Your task to perform on an android device: change alarm snooze length Image 0: 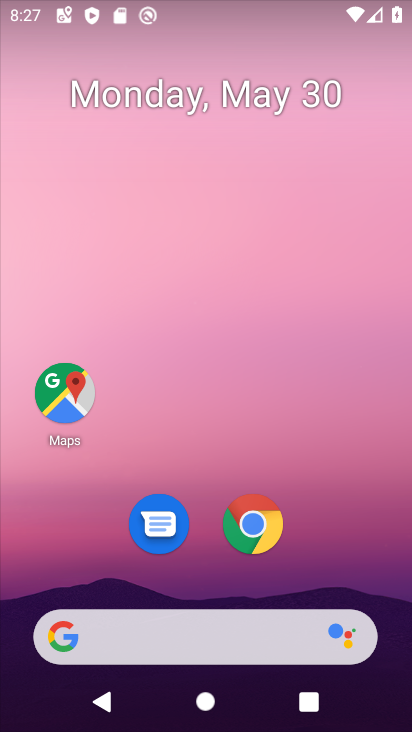
Step 0: drag from (311, 529) to (299, 33)
Your task to perform on an android device: change alarm snooze length Image 1: 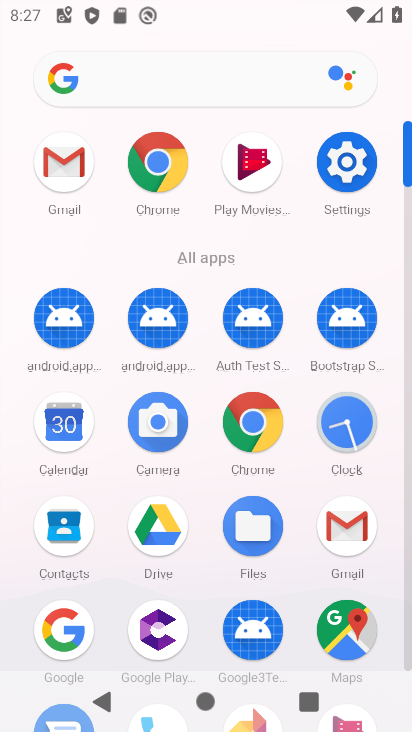
Step 1: click (347, 160)
Your task to perform on an android device: change alarm snooze length Image 2: 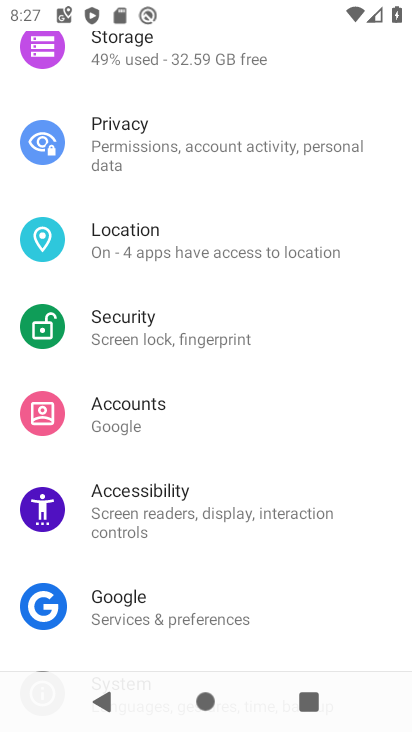
Step 2: press back button
Your task to perform on an android device: change alarm snooze length Image 3: 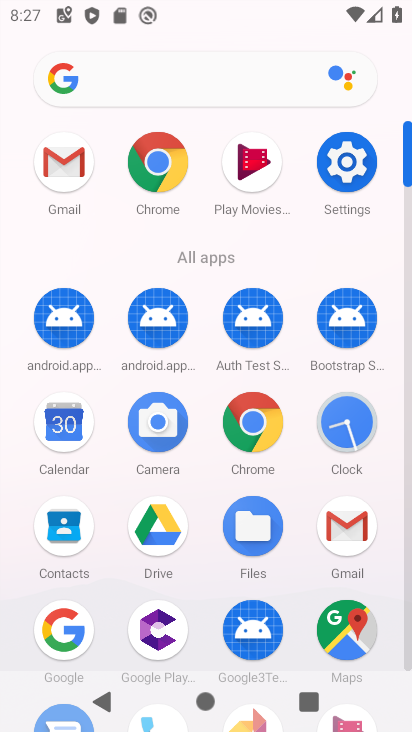
Step 3: click (360, 427)
Your task to perform on an android device: change alarm snooze length Image 4: 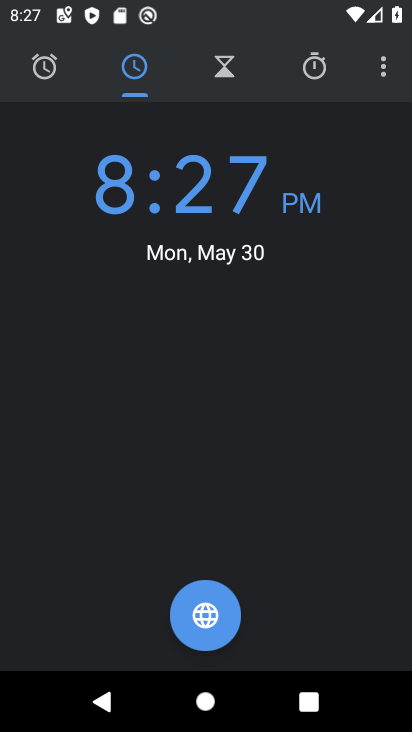
Step 4: click (383, 69)
Your task to perform on an android device: change alarm snooze length Image 5: 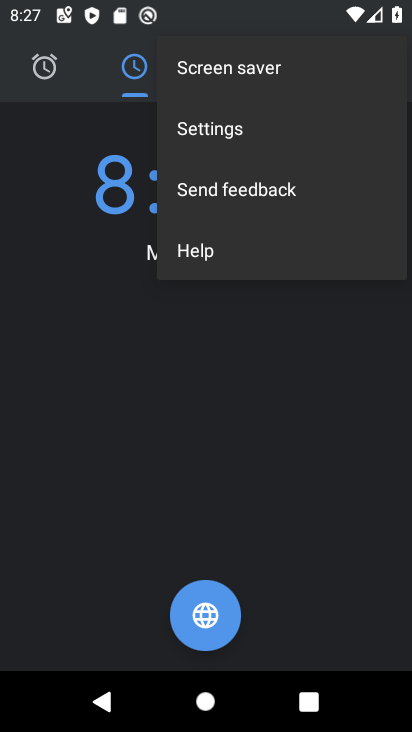
Step 5: click (294, 126)
Your task to perform on an android device: change alarm snooze length Image 6: 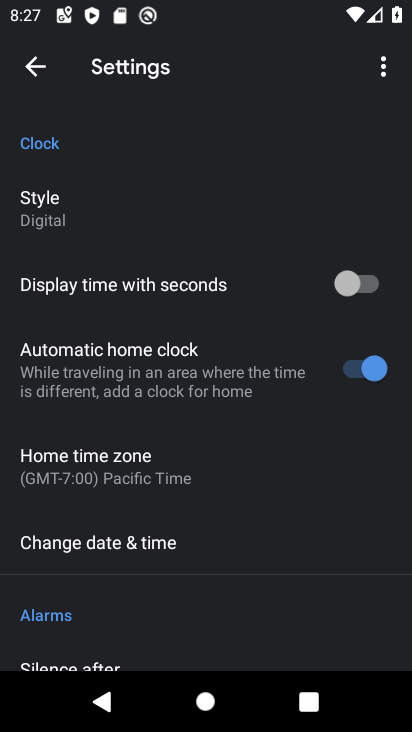
Step 6: drag from (262, 428) to (265, 45)
Your task to perform on an android device: change alarm snooze length Image 7: 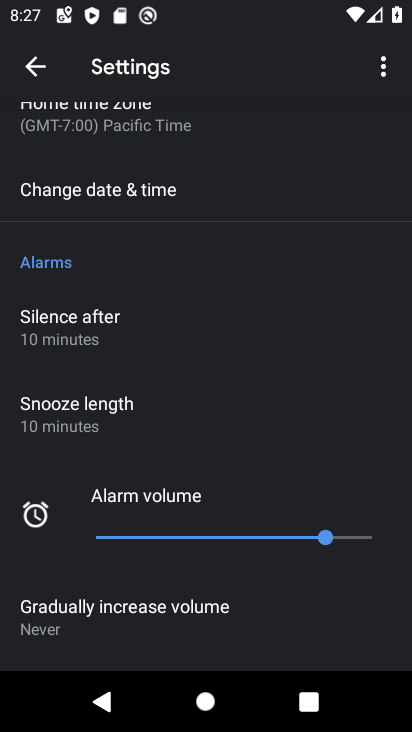
Step 7: click (132, 399)
Your task to perform on an android device: change alarm snooze length Image 8: 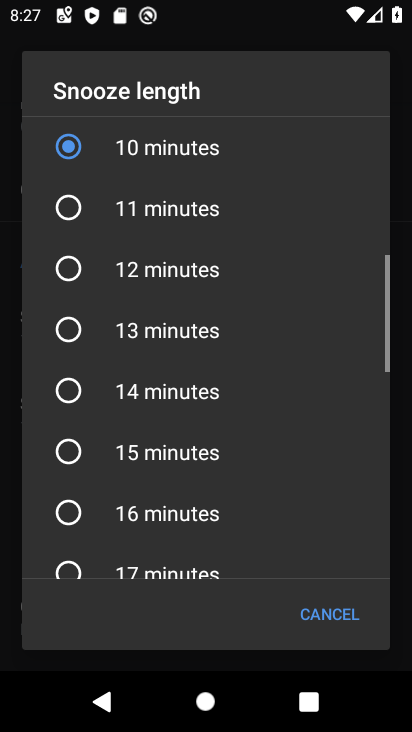
Step 8: click (78, 258)
Your task to perform on an android device: change alarm snooze length Image 9: 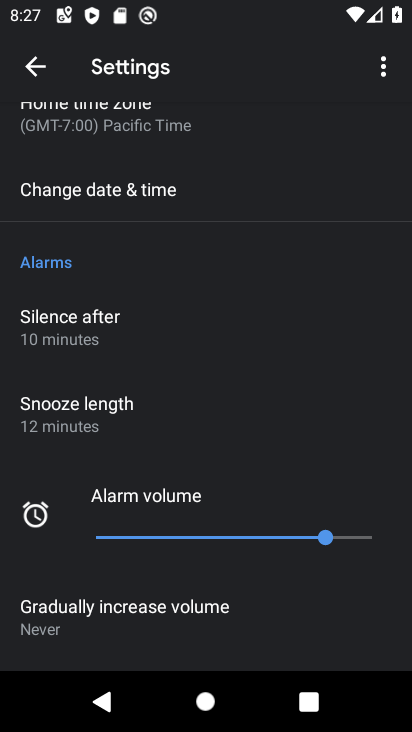
Step 9: task complete